Your task to perform on an android device: delete location history Image 0: 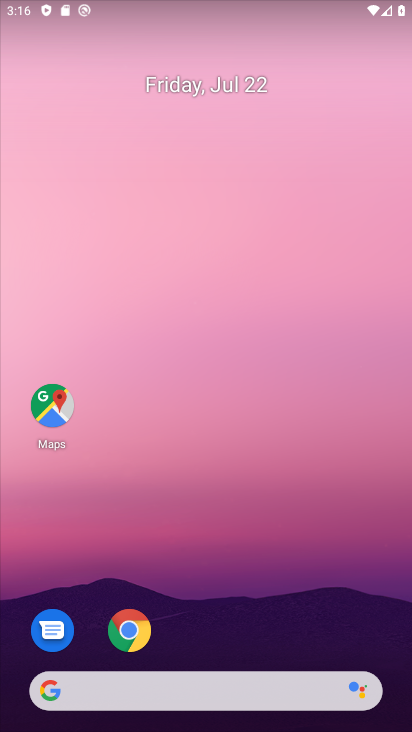
Step 0: drag from (287, 628) to (177, 22)
Your task to perform on an android device: delete location history Image 1: 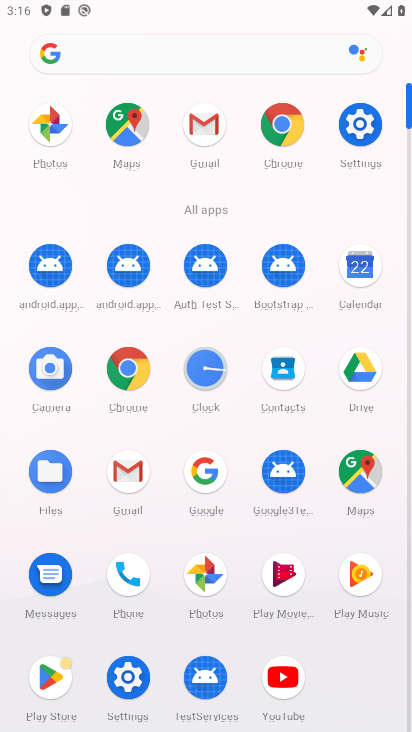
Step 1: click (137, 117)
Your task to perform on an android device: delete location history Image 2: 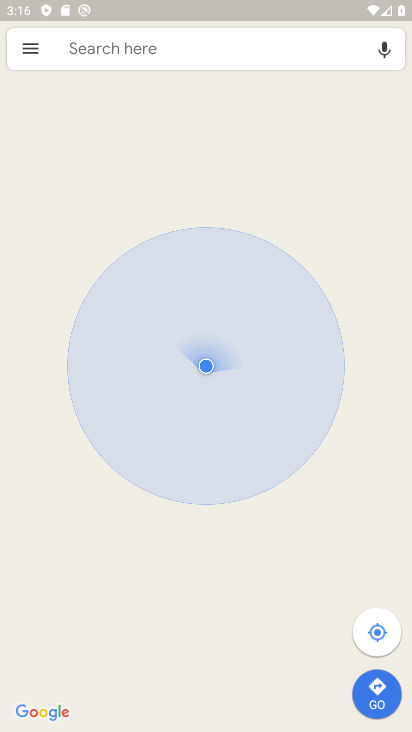
Step 2: click (32, 53)
Your task to perform on an android device: delete location history Image 3: 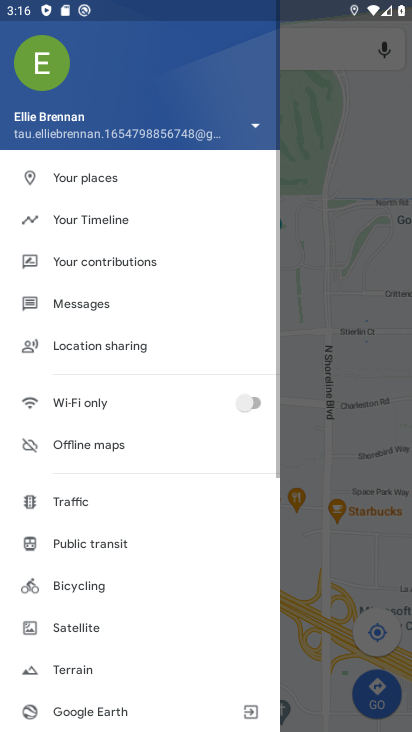
Step 3: drag from (137, 693) to (123, 621)
Your task to perform on an android device: delete location history Image 4: 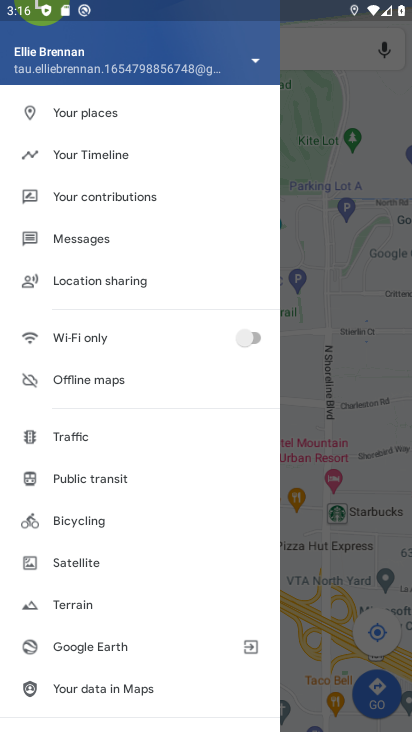
Step 4: click (105, 165)
Your task to perform on an android device: delete location history Image 5: 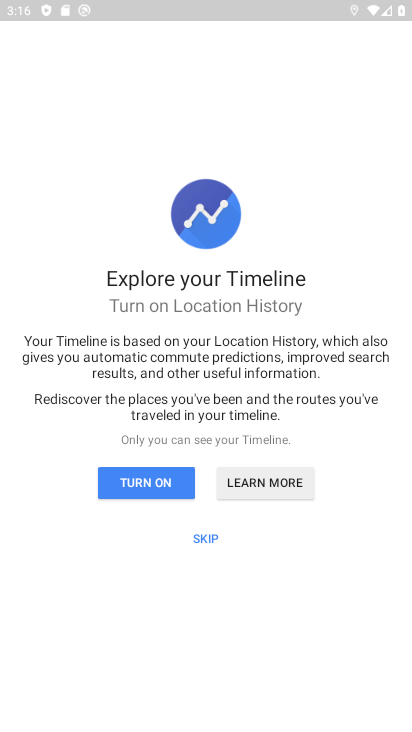
Step 5: click (199, 536)
Your task to perform on an android device: delete location history Image 6: 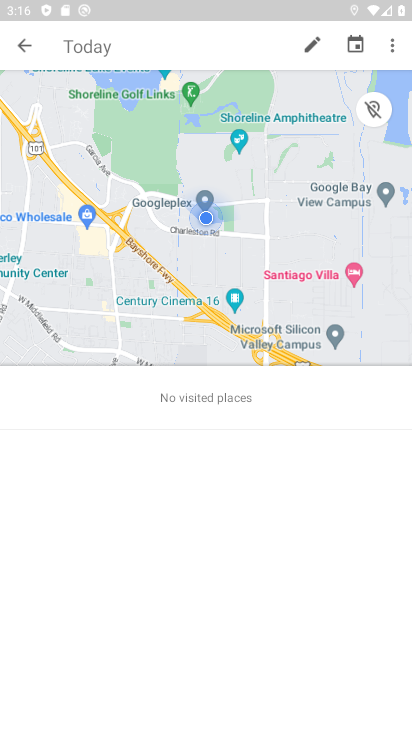
Step 6: click (393, 52)
Your task to perform on an android device: delete location history Image 7: 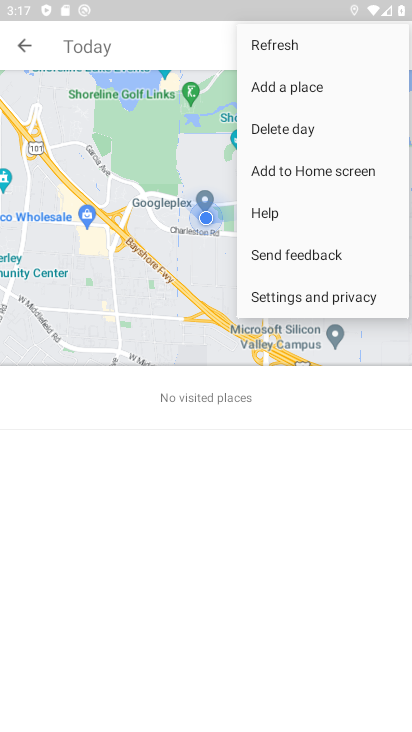
Step 7: click (327, 302)
Your task to perform on an android device: delete location history Image 8: 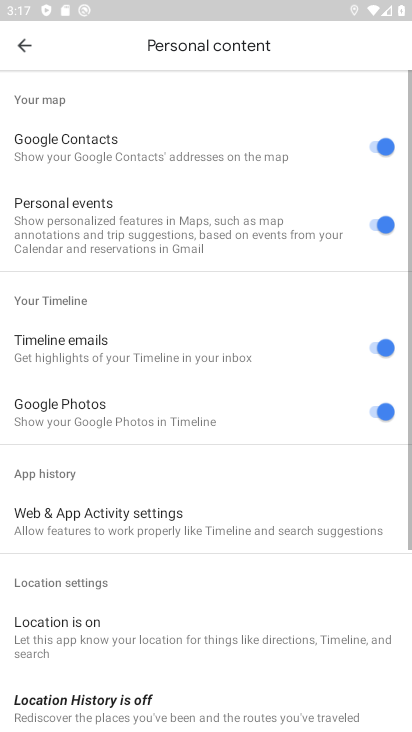
Step 8: drag from (193, 641) to (154, 256)
Your task to perform on an android device: delete location history Image 9: 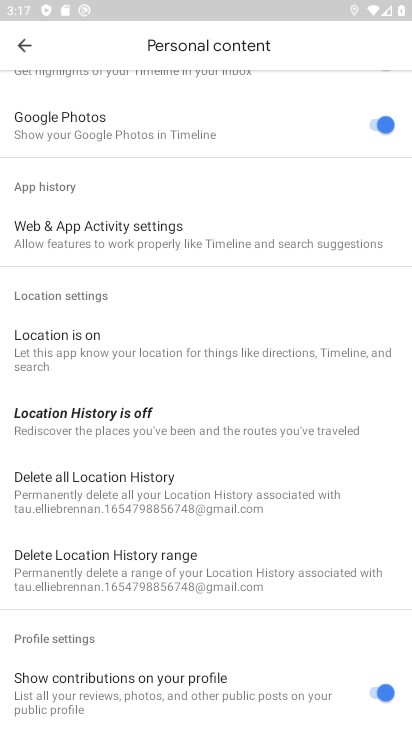
Step 9: click (112, 507)
Your task to perform on an android device: delete location history Image 10: 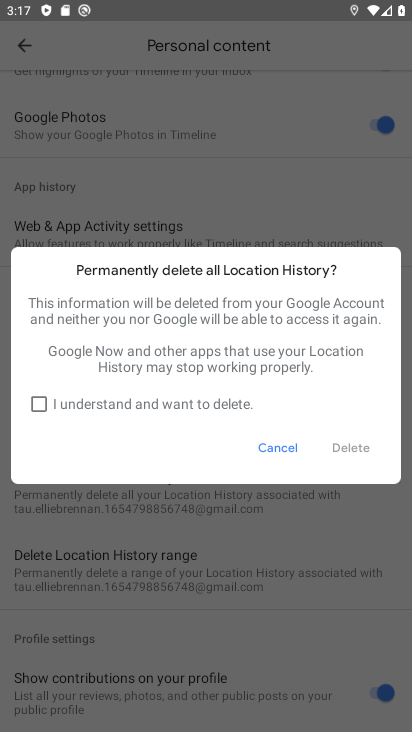
Step 10: click (182, 420)
Your task to perform on an android device: delete location history Image 11: 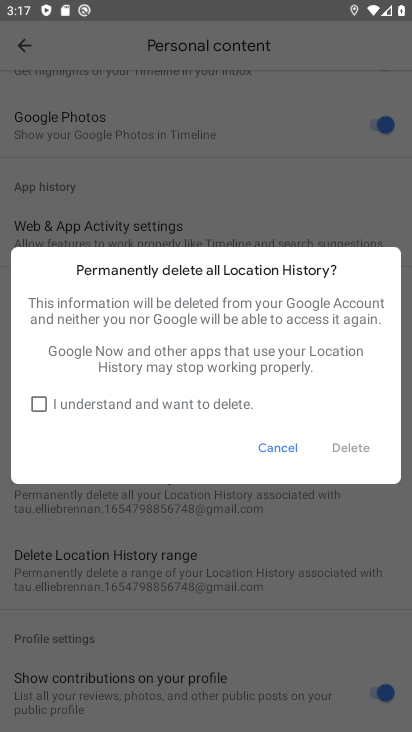
Step 11: click (182, 413)
Your task to perform on an android device: delete location history Image 12: 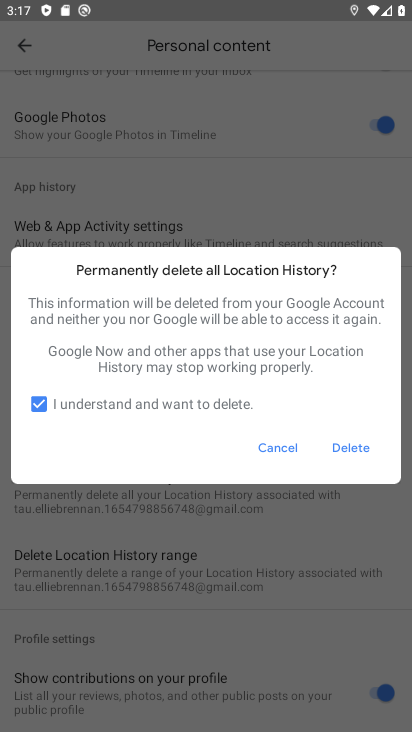
Step 12: click (355, 444)
Your task to perform on an android device: delete location history Image 13: 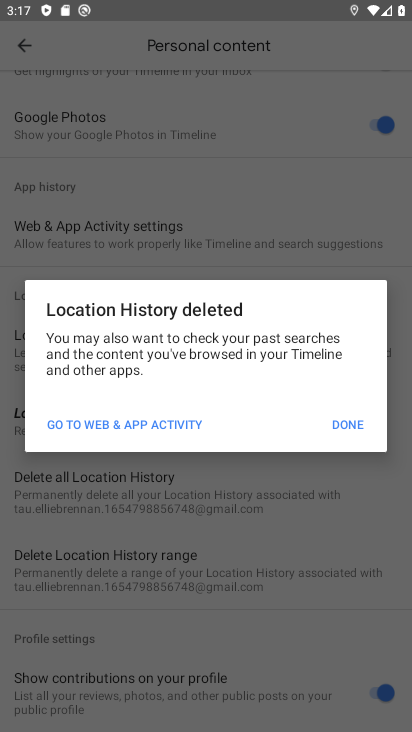
Step 13: click (351, 422)
Your task to perform on an android device: delete location history Image 14: 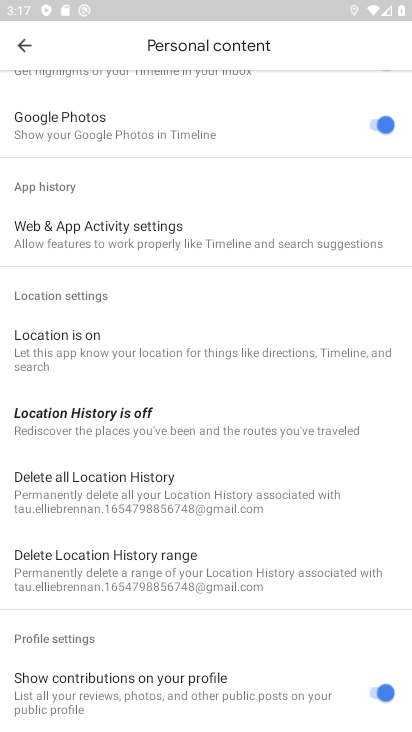
Step 14: task complete